Your task to perform on an android device: Open the map Image 0: 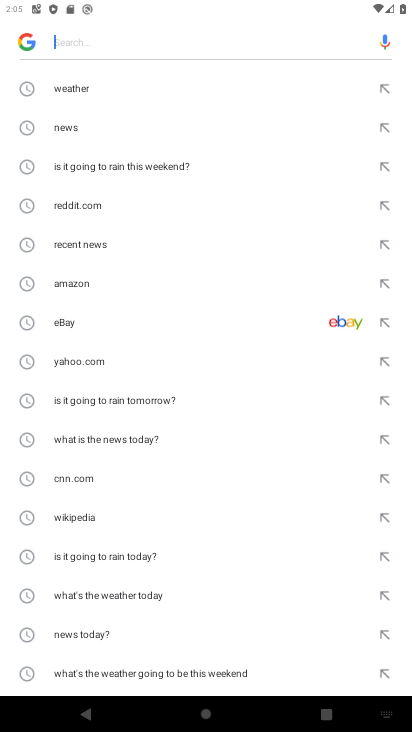
Step 0: press home button
Your task to perform on an android device: Open the map Image 1: 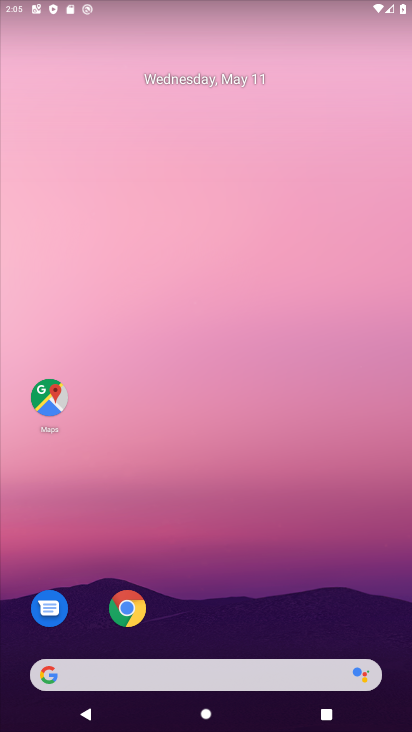
Step 1: click (37, 406)
Your task to perform on an android device: Open the map Image 2: 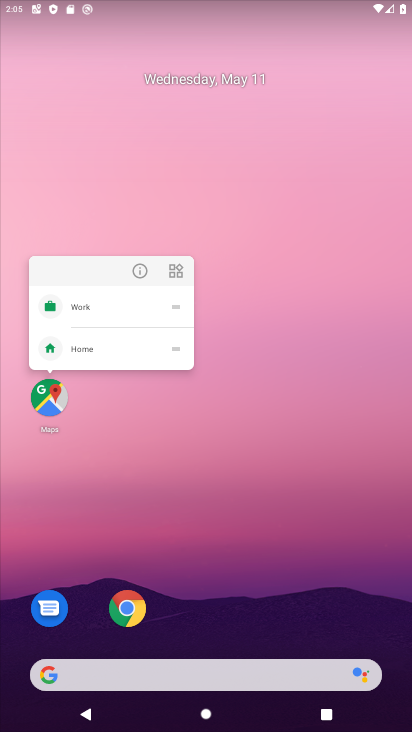
Step 2: click (38, 405)
Your task to perform on an android device: Open the map Image 3: 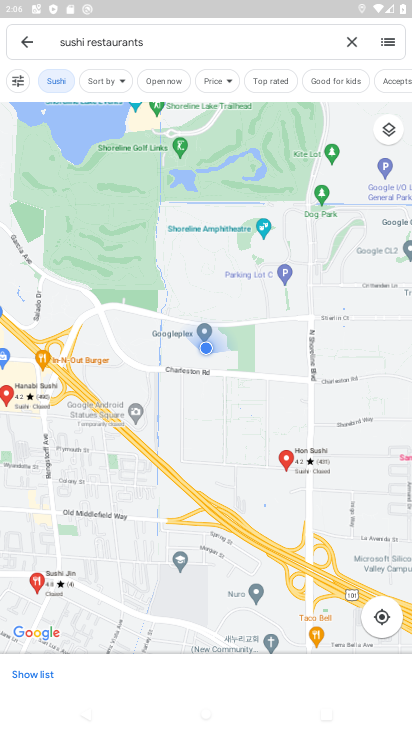
Step 3: press home button
Your task to perform on an android device: Open the map Image 4: 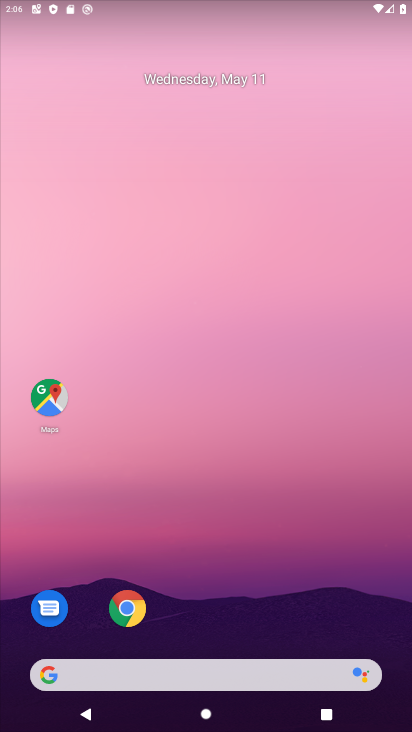
Step 4: click (42, 379)
Your task to perform on an android device: Open the map Image 5: 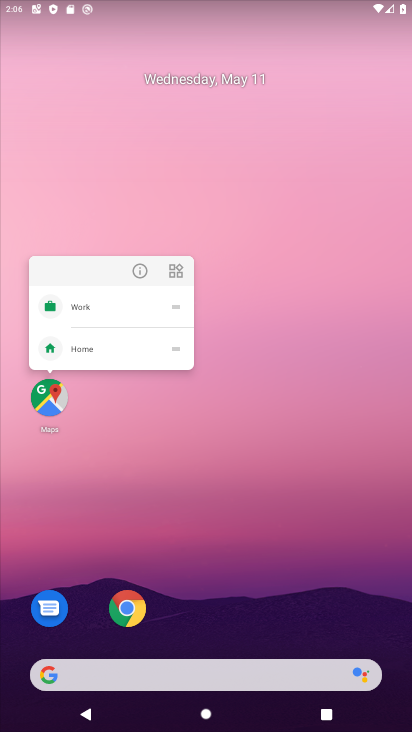
Step 5: click (40, 394)
Your task to perform on an android device: Open the map Image 6: 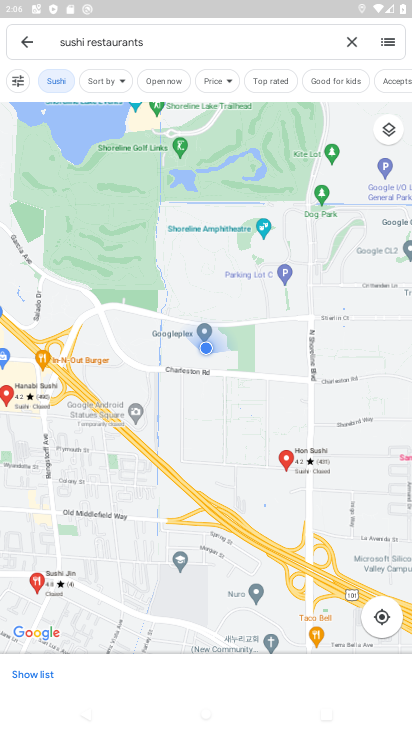
Step 6: task complete